Your task to perform on an android device: open a new tab in the chrome app Image 0: 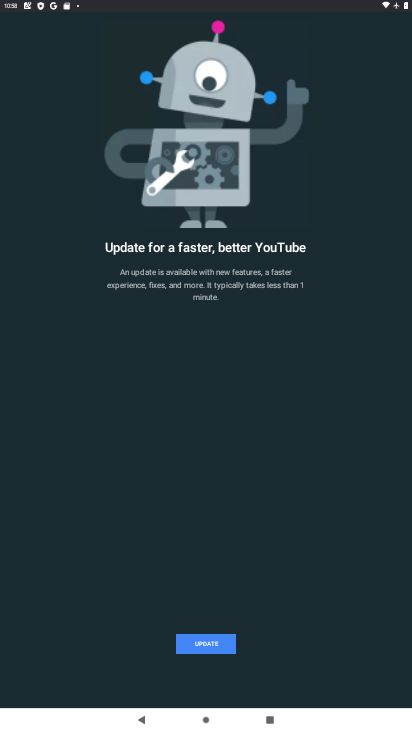
Step 0: press home button
Your task to perform on an android device: open a new tab in the chrome app Image 1: 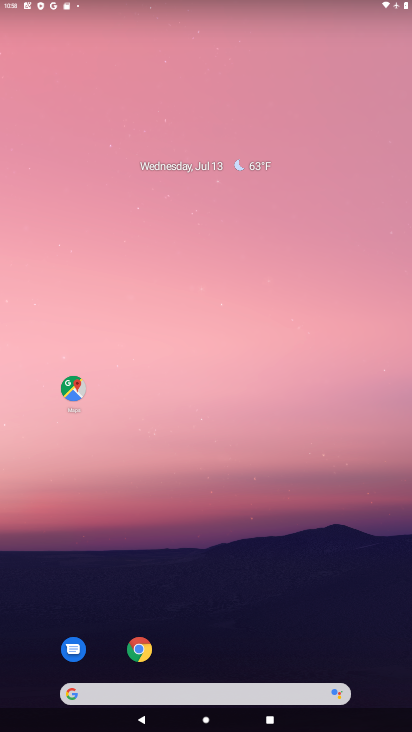
Step 1: drag from (275, 658) to (277, 510)
Your task to perform on an android device: open a new tab in the chrome app Image 2: 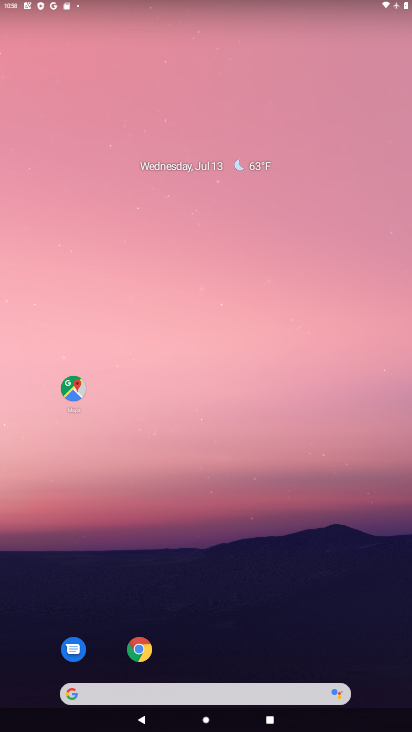
Step 2: drag from (233, 684) to (253, 286)
Your task to perform on an android device: open a new tab in the chrome app Image 3: 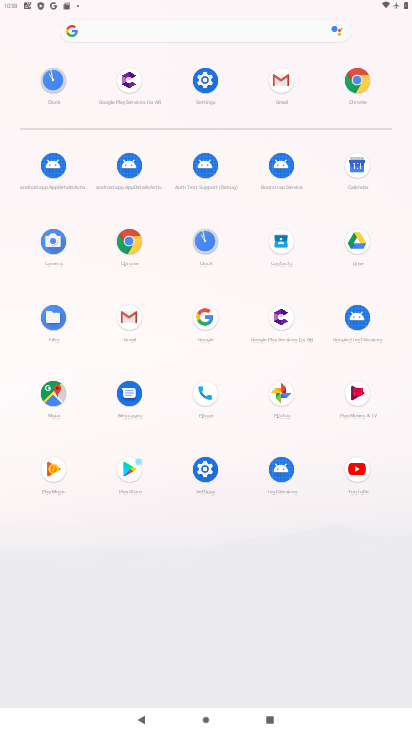
Step 3: click (362, 90)
Your task to perform on an android device: open a new tab in the chrome app Image 4: 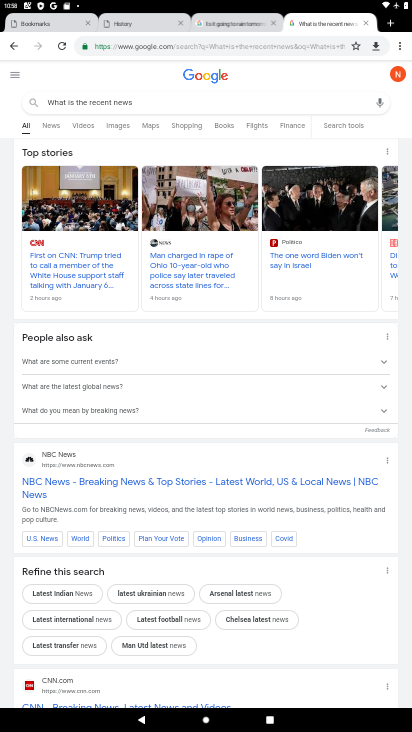
Step 4: click (407, 38)
Your task to perform on an android device: open a new tab in the chrome app Image 5: 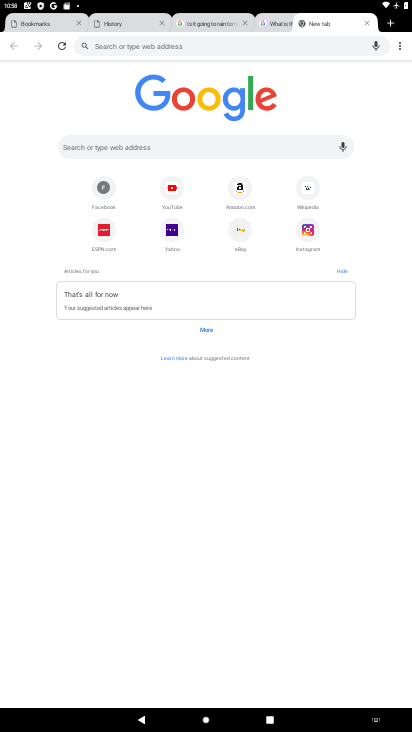
Step 5: task complete